Your task to perform on an android device: Go to display settings Image 0: 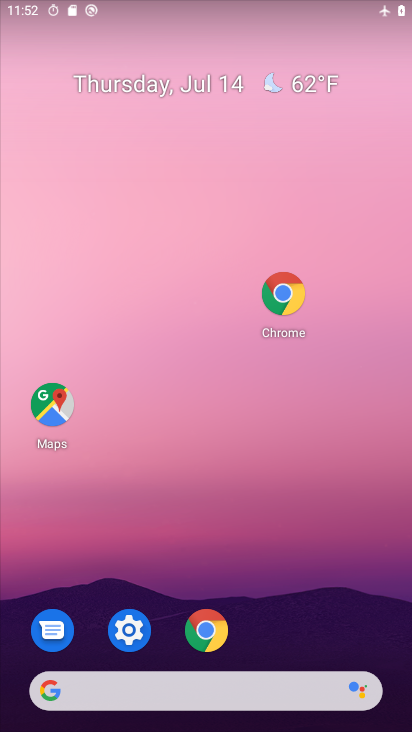
Step 0: drag from (295, 575) to (183, 153)
Your task to perform on an android device: Go to display settings Image 1: 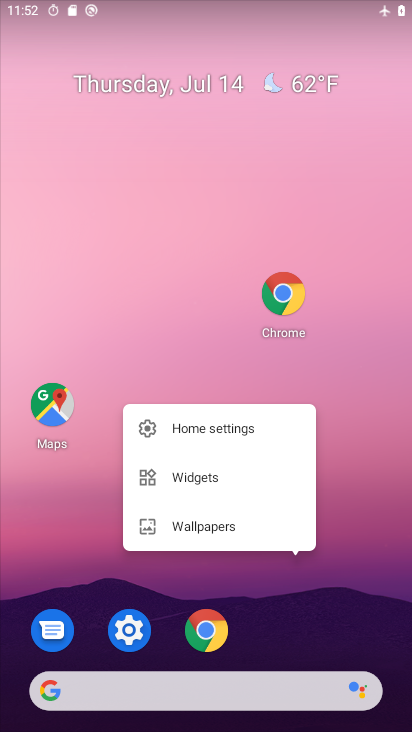
Step 1: drag from (255, 616) to (211, 94)
Your task to perform on an android device: Go to display settings Image 2: 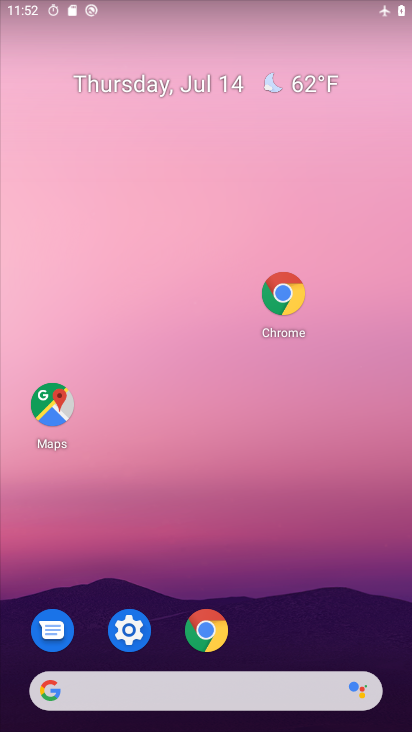
Step 2: drag from (180, 572) to (166, 83)
Your task to perform on an android device: Go to display settings Image 3: 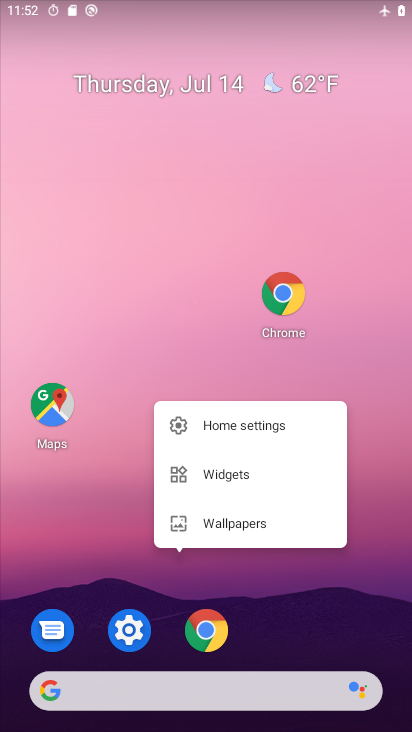
Step 3: drag from (128, 524) to (82, 79)
Your task to perform on an android device: Go to display settings Image 4: 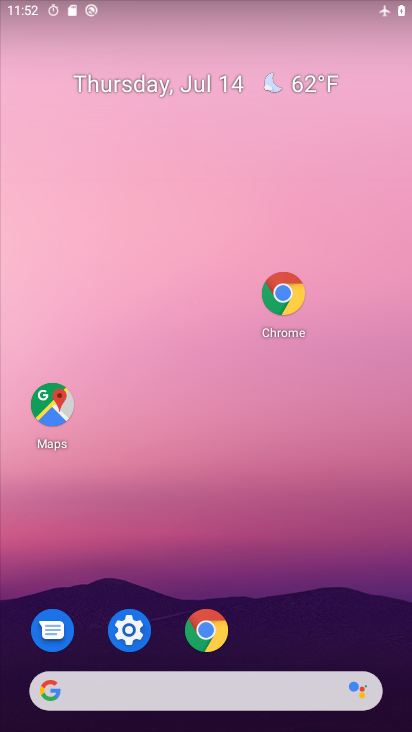
Step 4: drag from (163, 454) to (60, 3)
Your task to perform on an android device: Go to display settings Image 5: 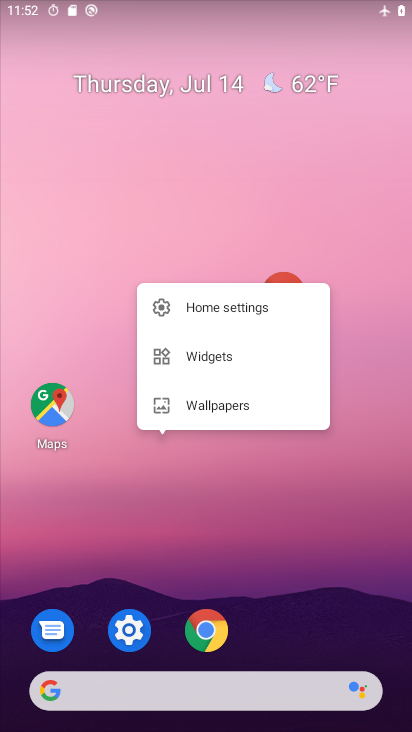
Step 5: drag from (229, 575) to (123, 116)
Your task to perform on an android device: Go to display settings Image 6: 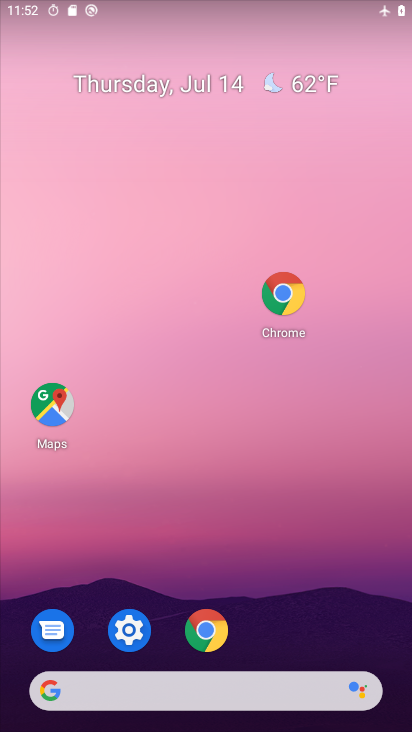
Step 6: drag from (195, 621) to (168, 42)
Your task to perform on an android device: Go to display settings Image 7: 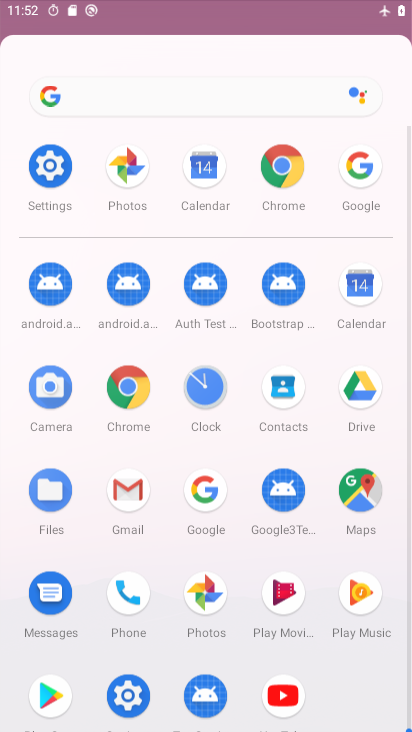
Step 7: drag from (259, 533) to (203, 98)
Your task to perform on an android device: Go to display settings Image 8: 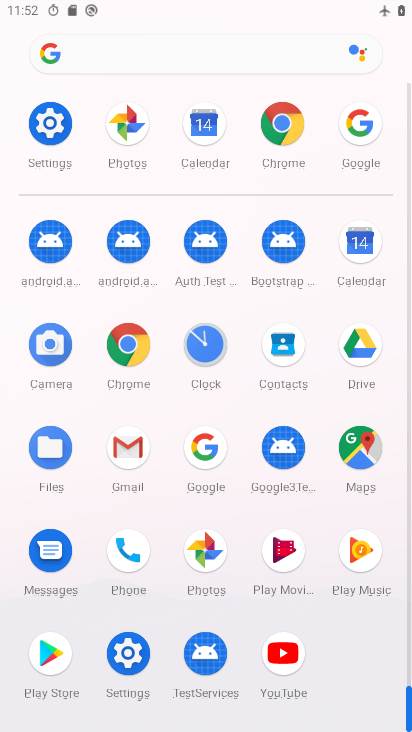
Step 8: click (120, 652)
Your task to perform on an android device: Go to display settings Image 9: 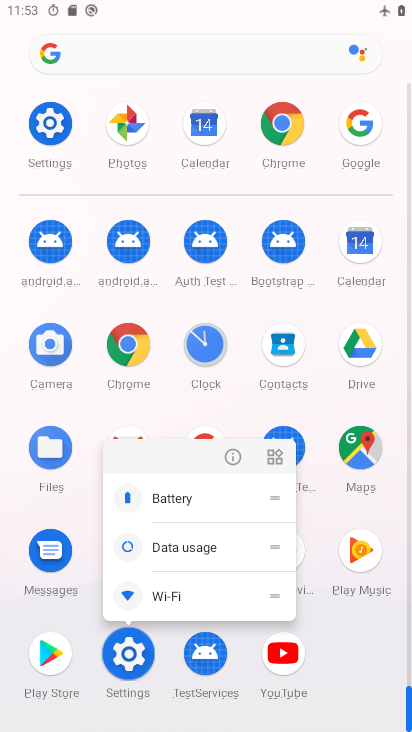
Step 9: click (126, 653)
Your task to perform on an android device: Go to display settings Image 10: 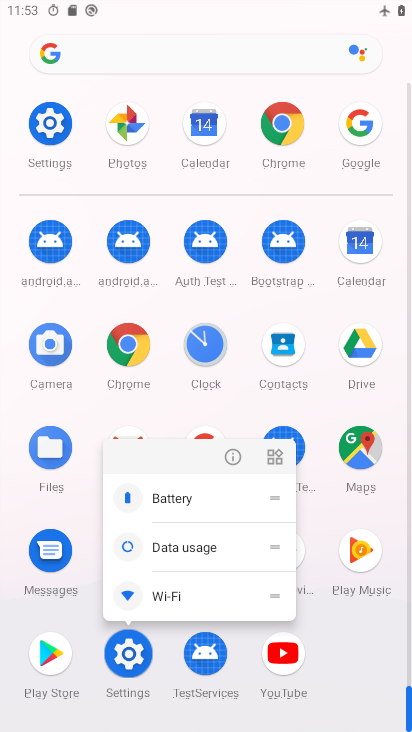
Step 10: click (126, 653)
Your task to perform on an android device: Go to display settings Image 11: 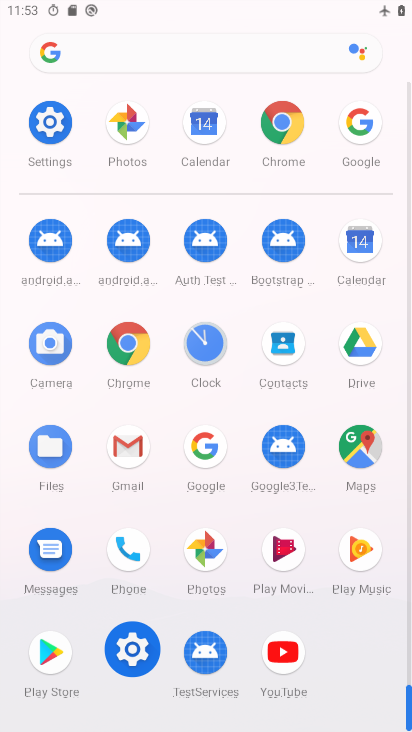
Step 11: click (132, 659)
Your task to perform on an android device: Go to display settings Image 12: 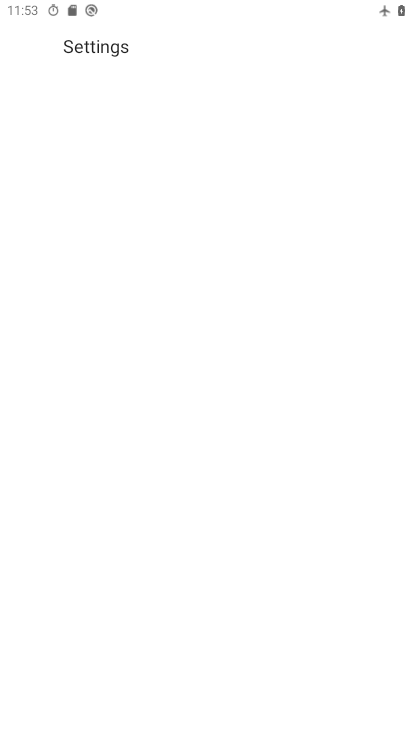
Step 12: click (139, 656)
Your task to perform on an android device: Go to display settings Image 13: 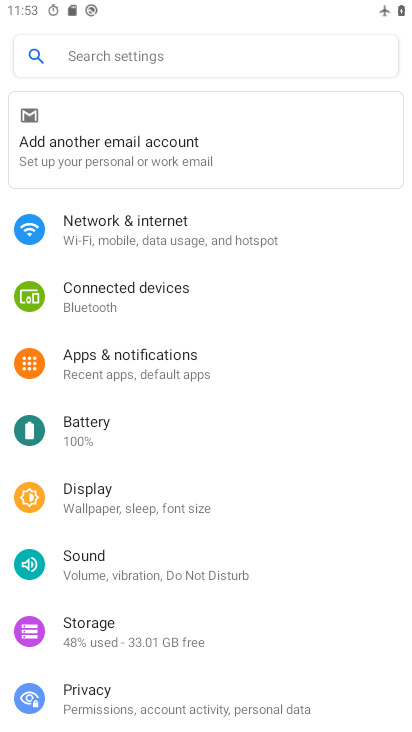
Step 13: click (142, 656)
Your task to perform on an android device: Go to display settings Image 14: 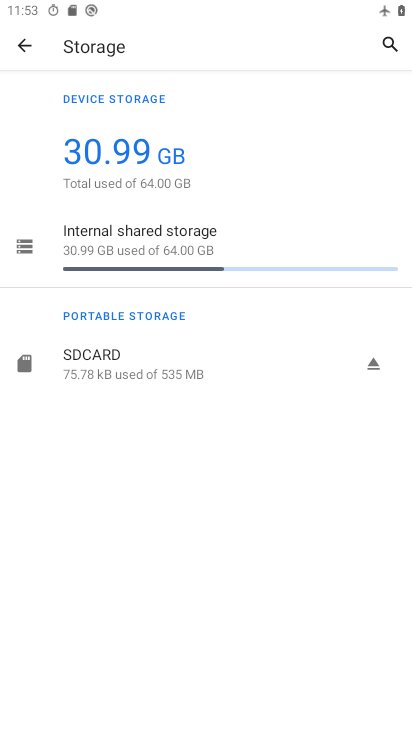
Step 14: click (23, 41)
Your task to perform on an android device: Go to display settings Image 15: 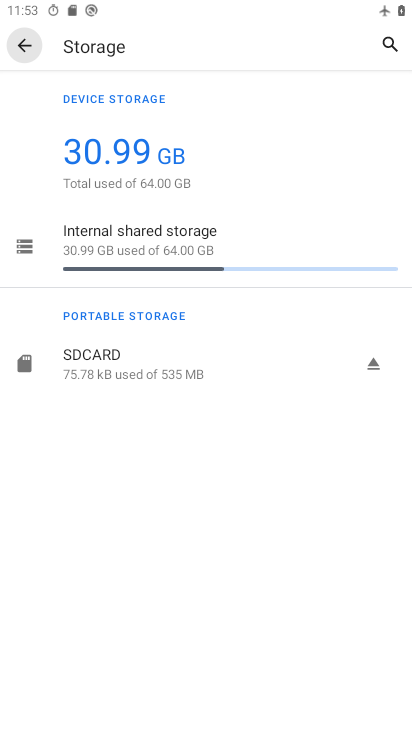
Step 15: click (23, 41)
Your task to perform on an android device: Go to display settings Image 16: 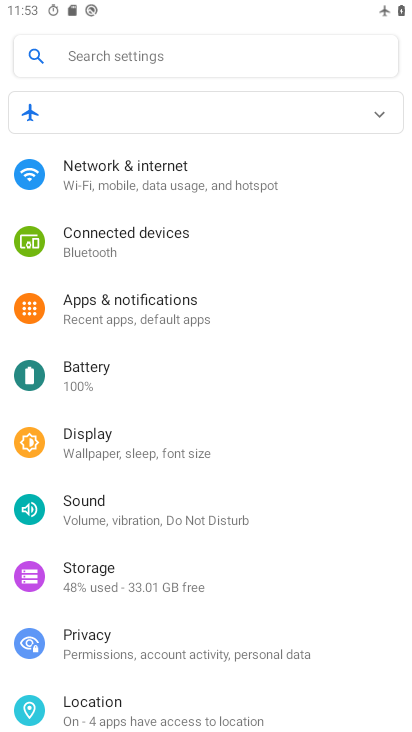
Step 16: click (89, 444)
Your task to perform on an android device: Go to display settings Image 17: 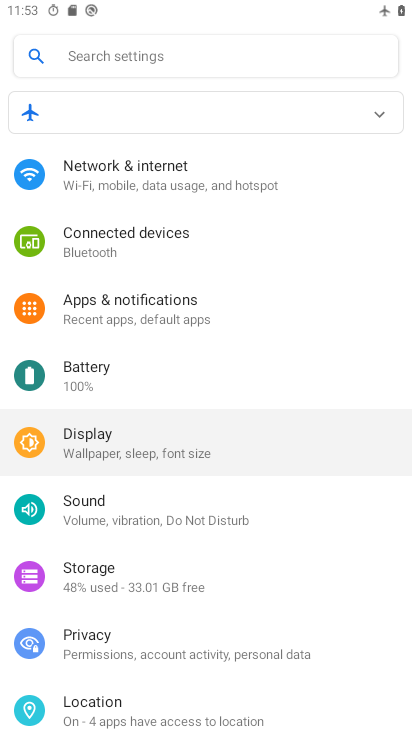
Step 17: click (86, 444)
Your task to perform on an android device: Go to display settings Image 18: 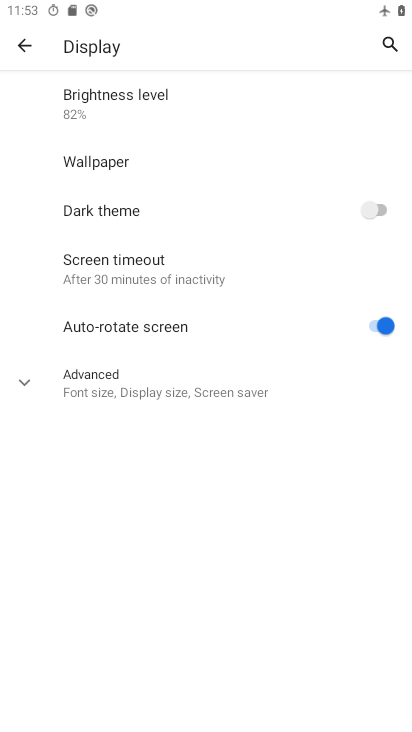
Step 18: click (86, 444)
Your task to perform on an android device: Go to display settings Image 19: 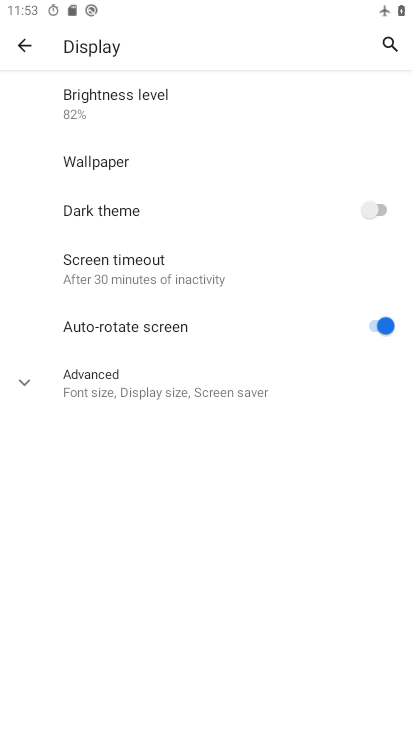
Step 19: click (86, 444)
Your task to perform on an android device: Go to display settings Image 20: 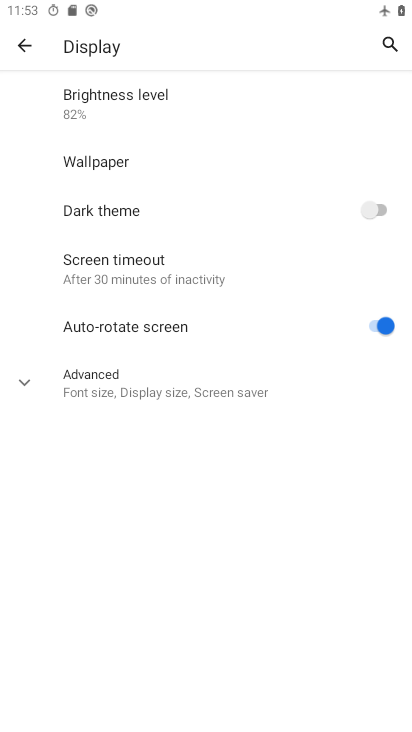
Step 20: task complete